Your task to perform on an android device: Open the stopwatch Image 0: 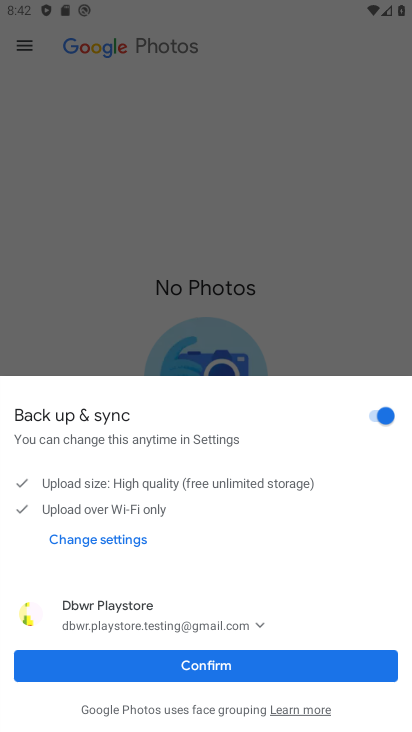
Step 0: press home button
Your task to perform on an android device: Open the stopwatch Image 1: 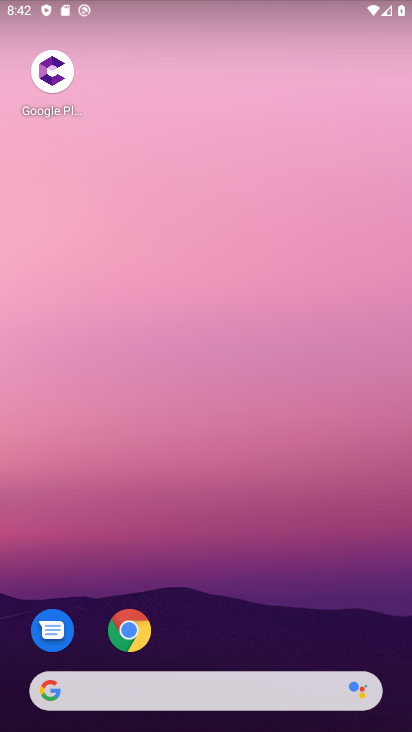
Step 1: drag from (327, 610) to (384, 115)
Your task to perform on an android device: Open the stopwatch Image 2: 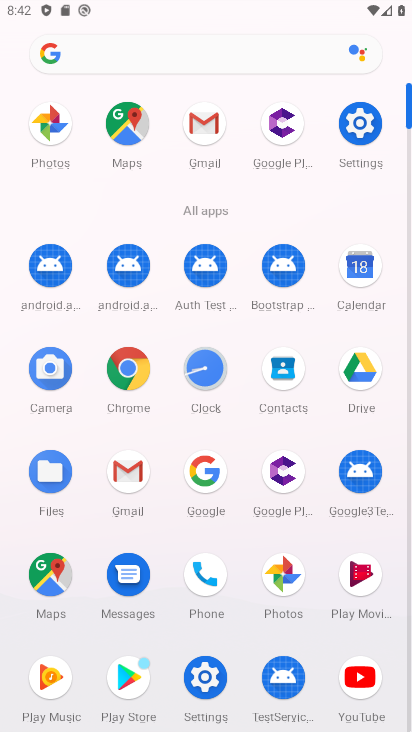
Step 2: click (203, 382)
Your task to perform on an android device: Open the stopwatch Image 3: 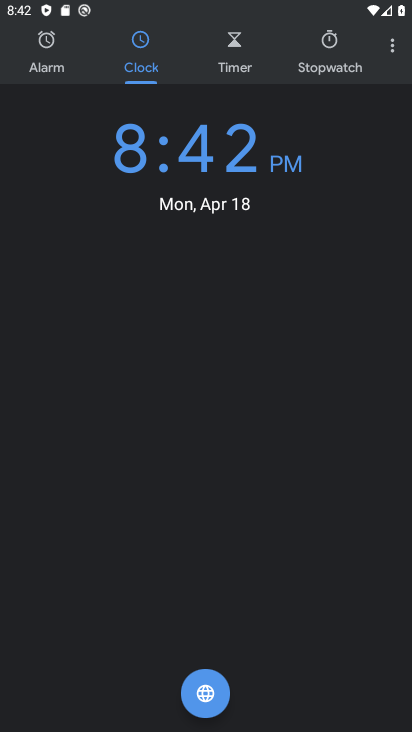
Step 3: click (340, 48)
Your task to perform on an android device: Open the stopwatch Image 4: 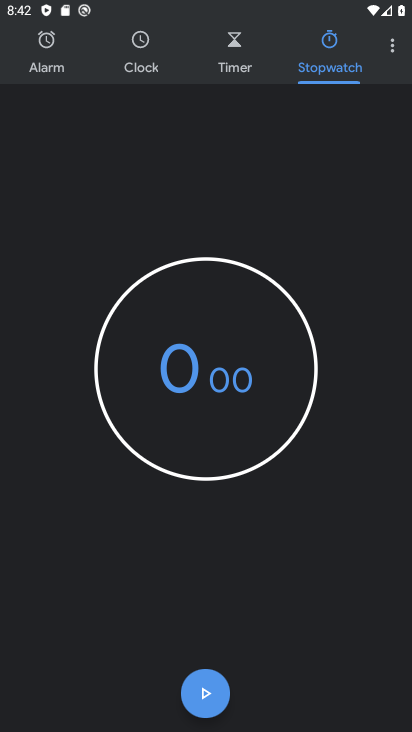
Step 4: task complete